Your task to perform on an android device: open app "Move to iOS" (install if not already installed) and go to login screen Image 0: 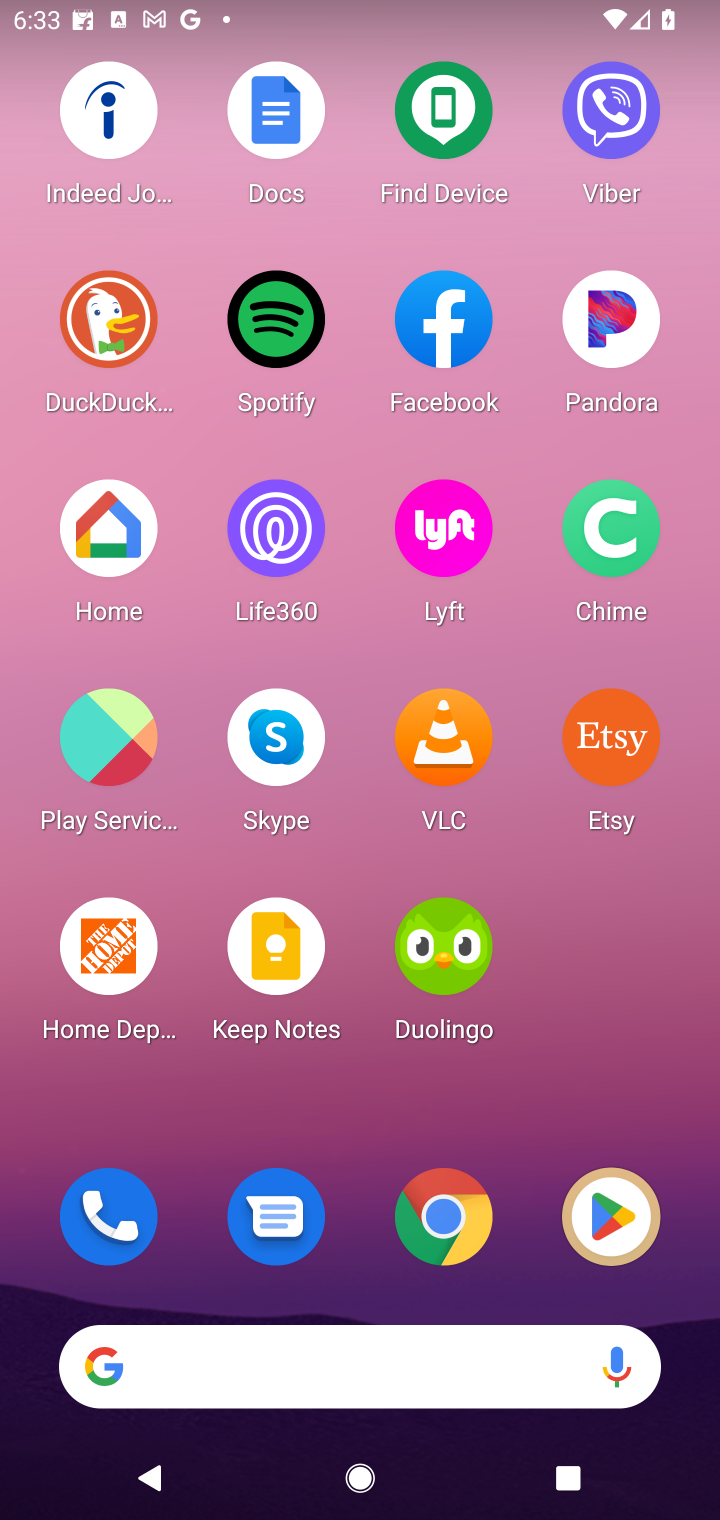
Step 0: click (578, 1186)
Your task to perform on an android device: open app "Move to iOS" (install if not already installed) and go to login screen Image 1: 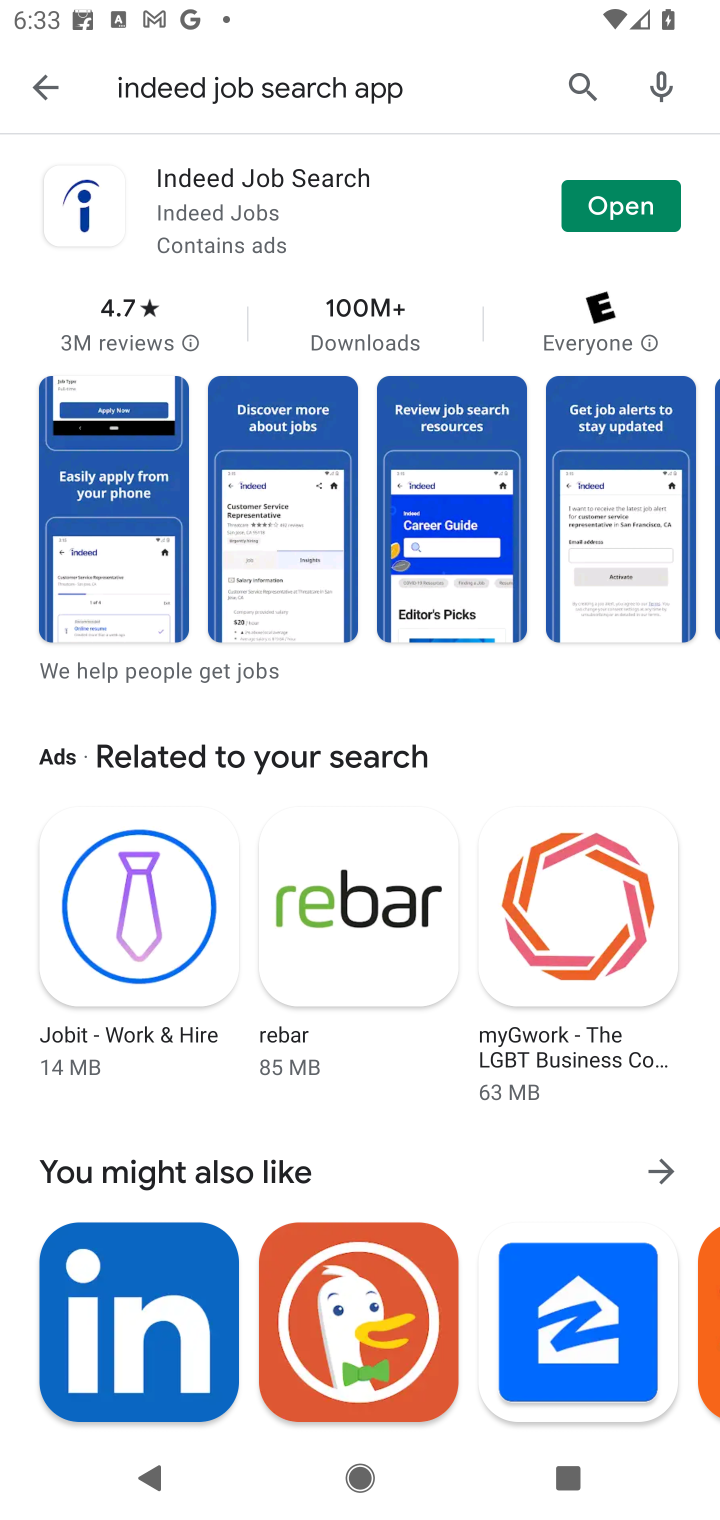
Step 1: click (568, 77)
Your task to perform on an android device: open app "Move to iOS" (install if not already installed) and go to login screen Image 2: 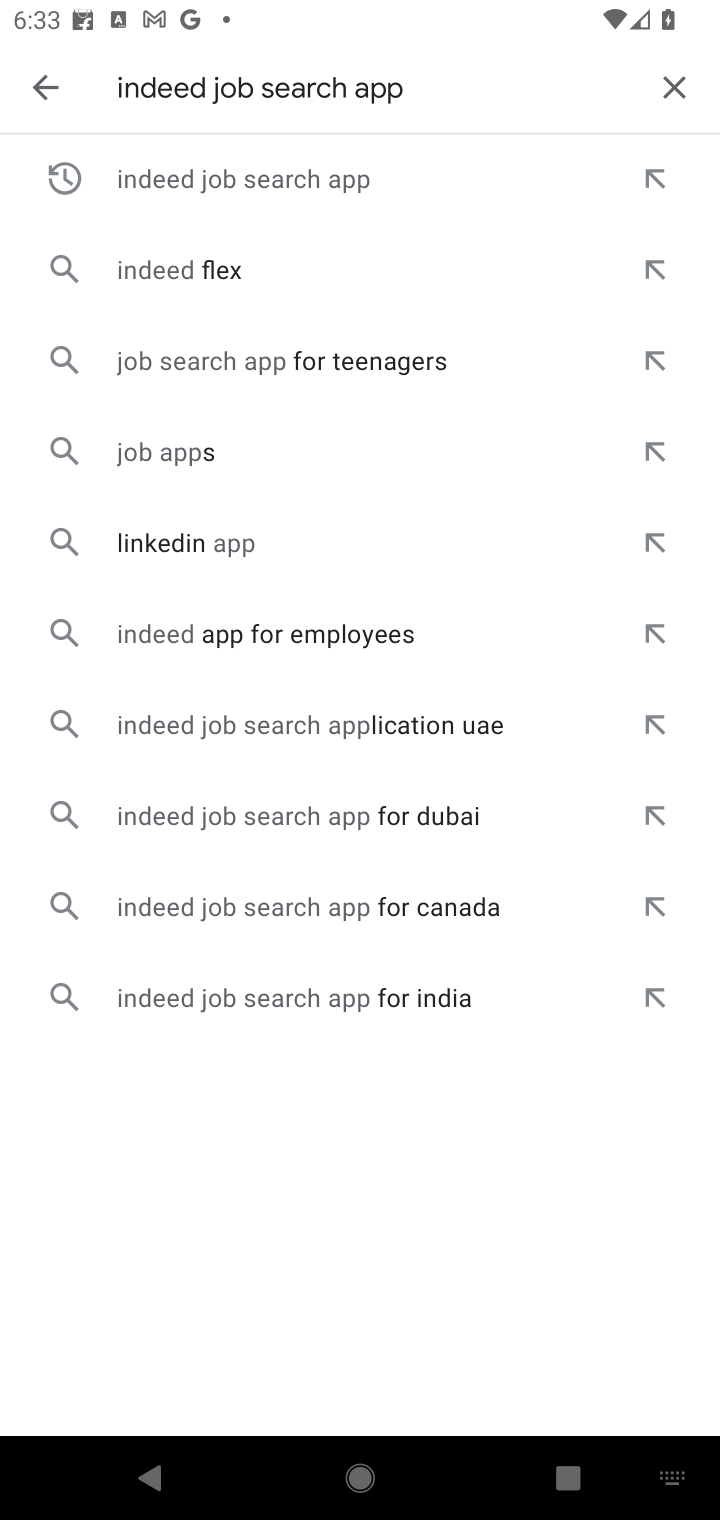
Step 2: click (657, 89)
Your task to perform on an android device: open app "Move to iOS" (install if not already installed) and go to login screen Image 3: 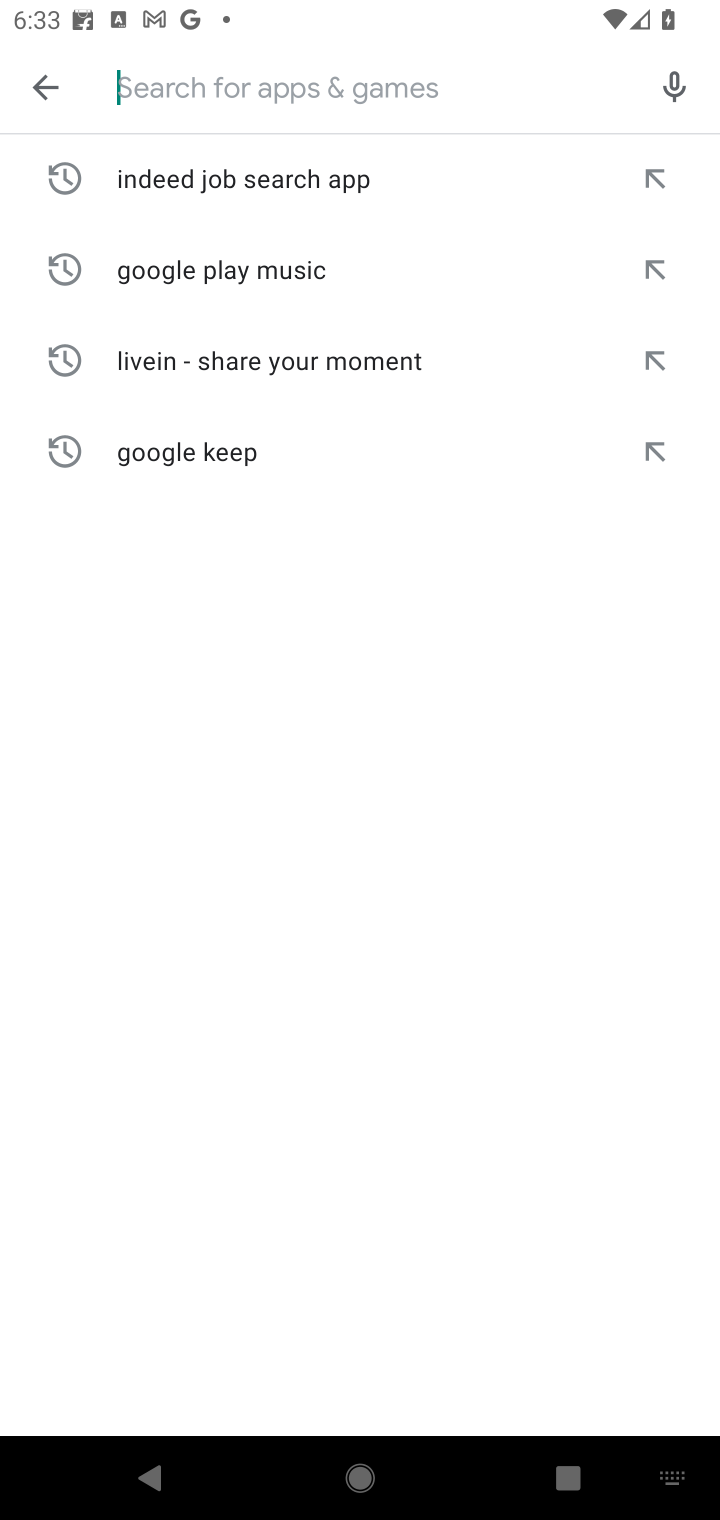
Step 3: type "Move to iOS"
Your task to perform on an android device: open app "Move to iOS" (install if not already installed) and go to login screen Image 4: 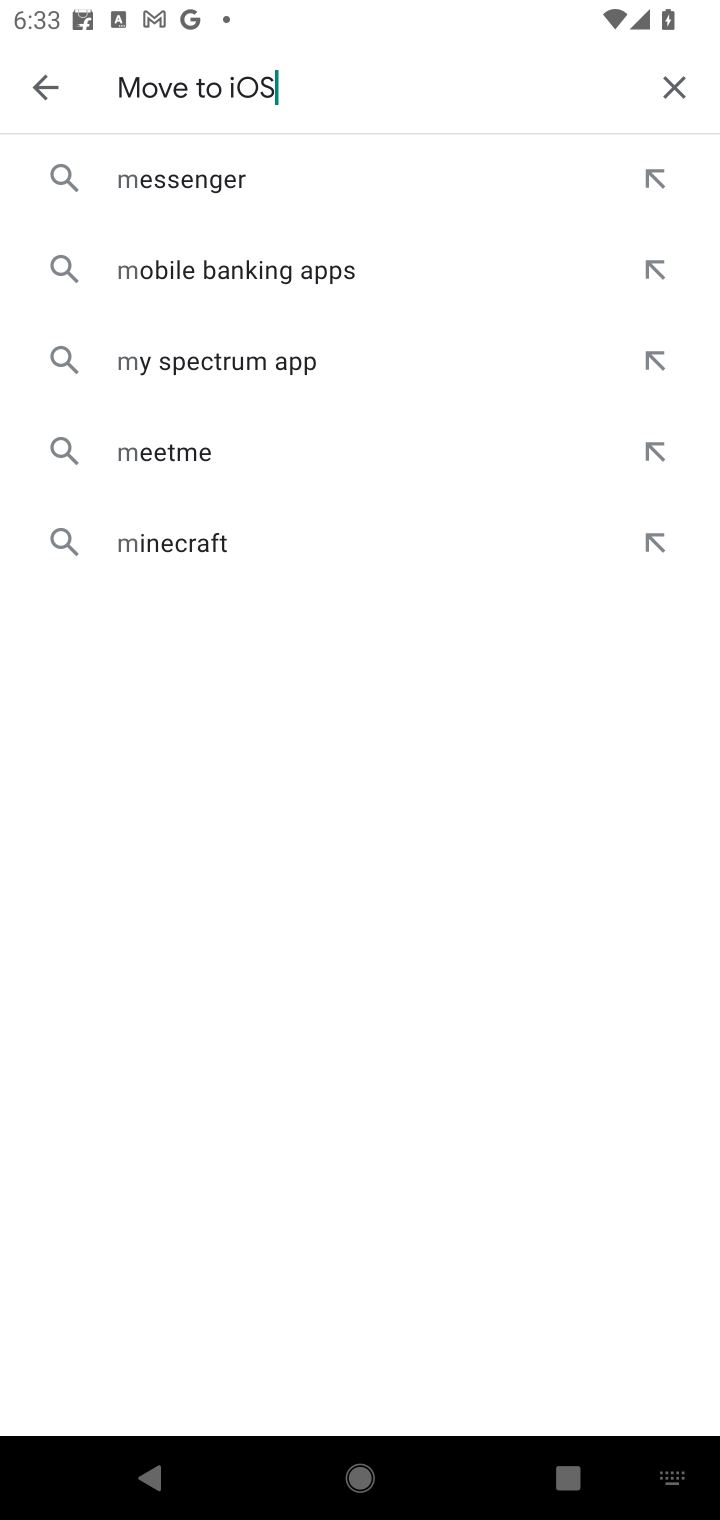
Step 4: type ""
Your task to perform on an android device: open app "Move to iOS" (install if not already installed) and go to login screen Image 5: 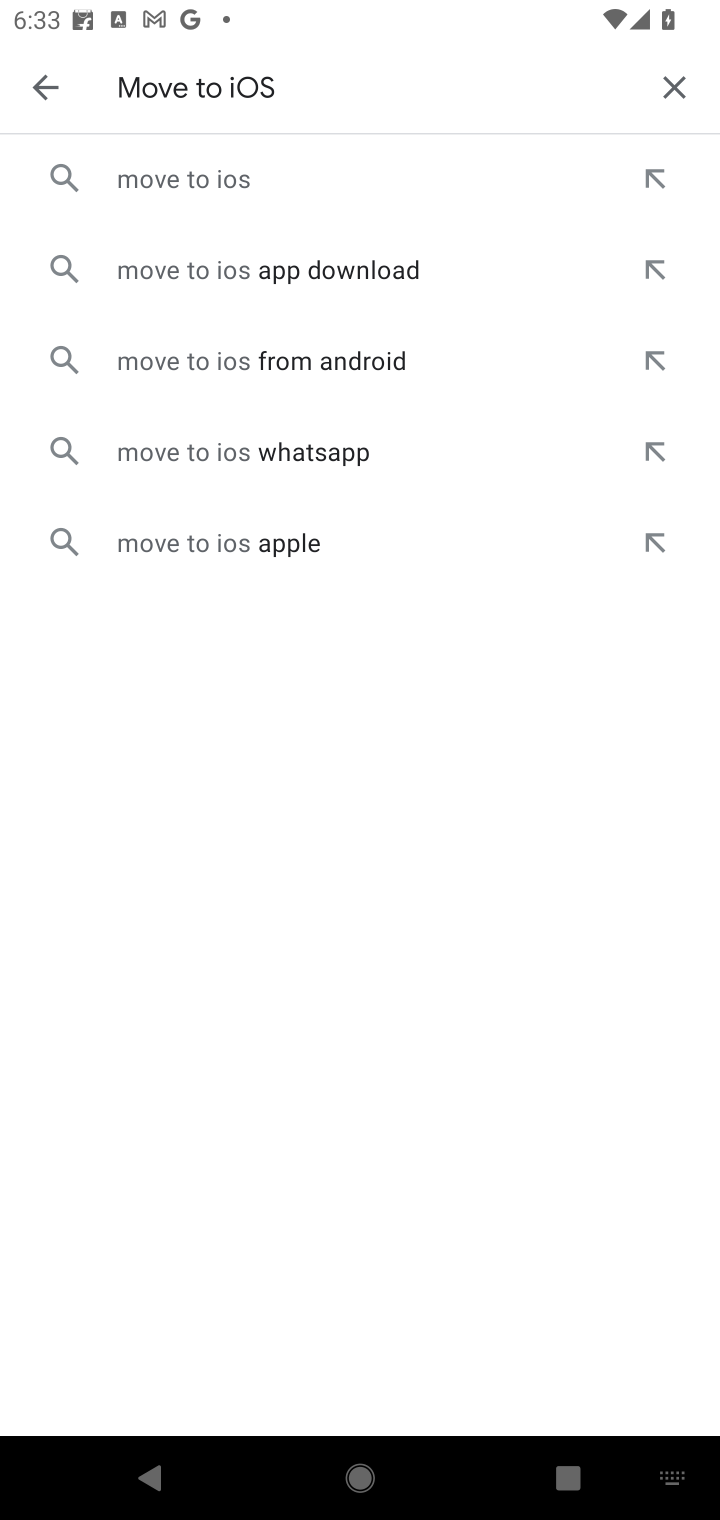
Step 5: click (220, 194)
Your task to perform on an android device: open app "Move to iOS" (install if not already installed) and go to login screen Image 6: 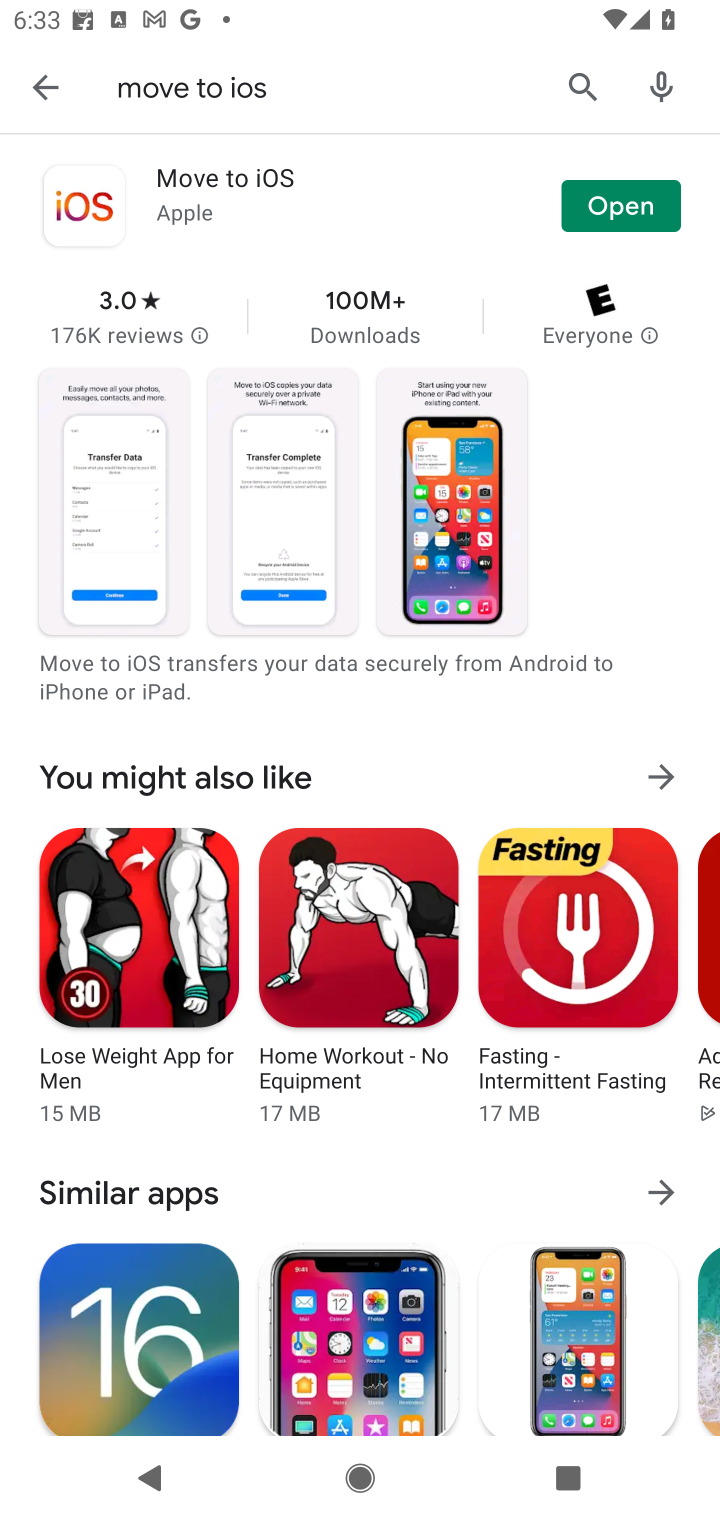
Step 6: click (645, 188)
Your task to perform on an android device: open app "Move to iOS" (install if not already installed) and go to login screen Image 7: 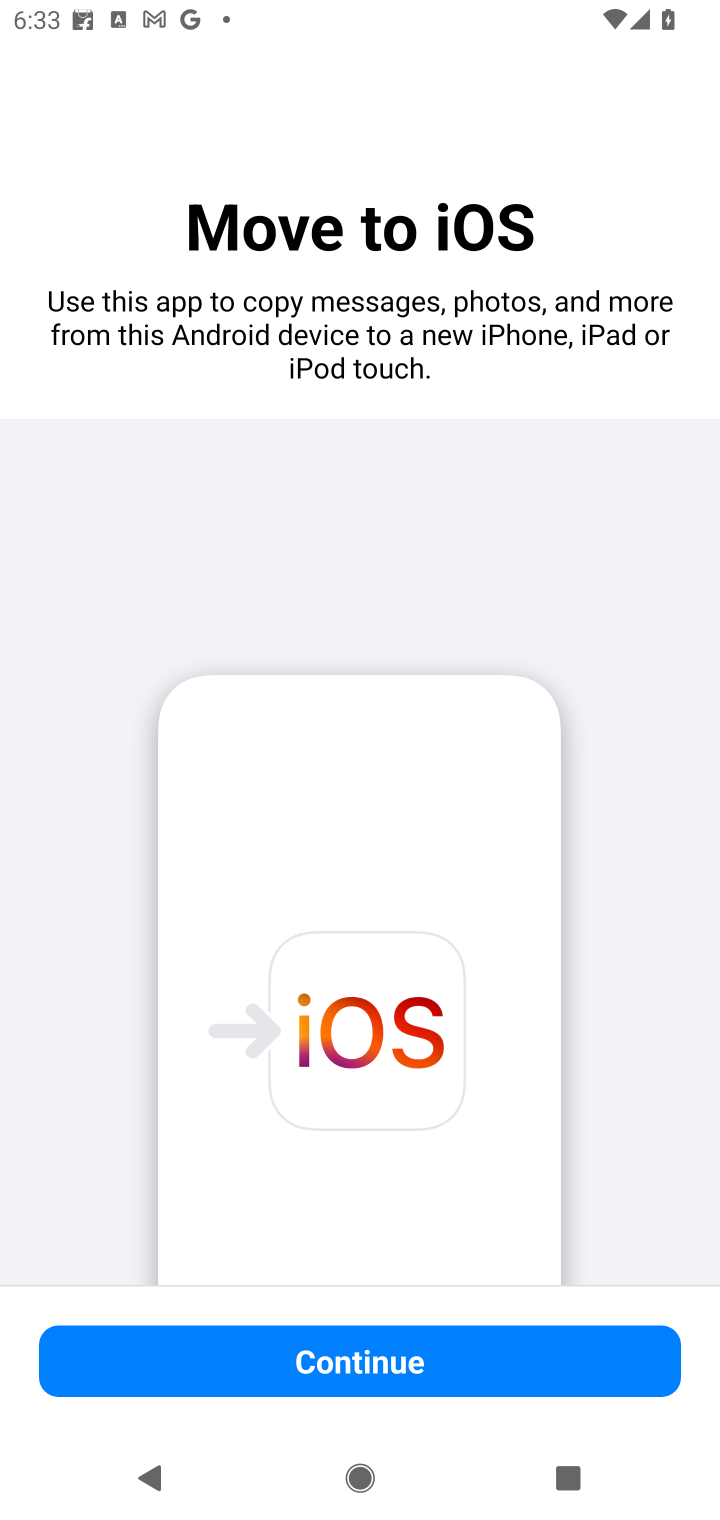
Step 7: task complete